Your task to perform on an android device: find which apps use the phone's location Image 0: 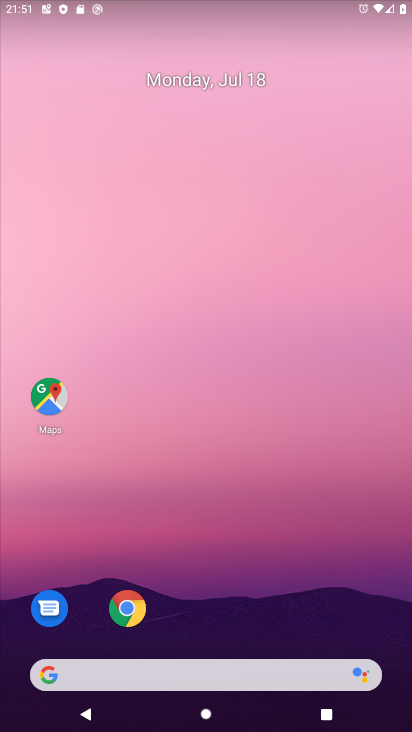
Step 0: drag from (39, 687) to (197, 285)
Your task to perform on an android device: find which apps use the phone's location Image 1: 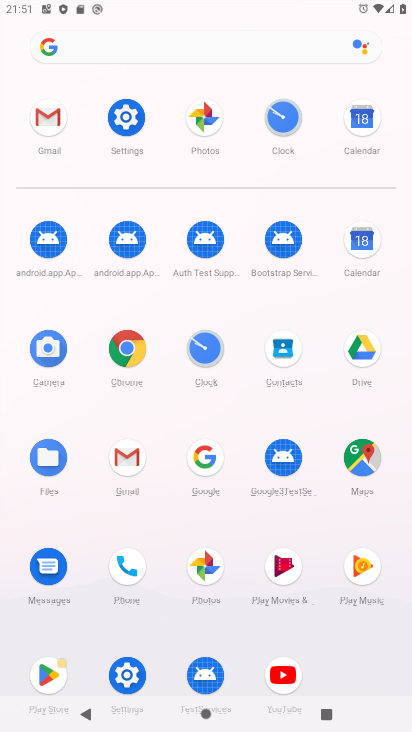
Step 1: click (131, 671)
Your task to perform on an android device: find which apps use the phone's location Image 2: 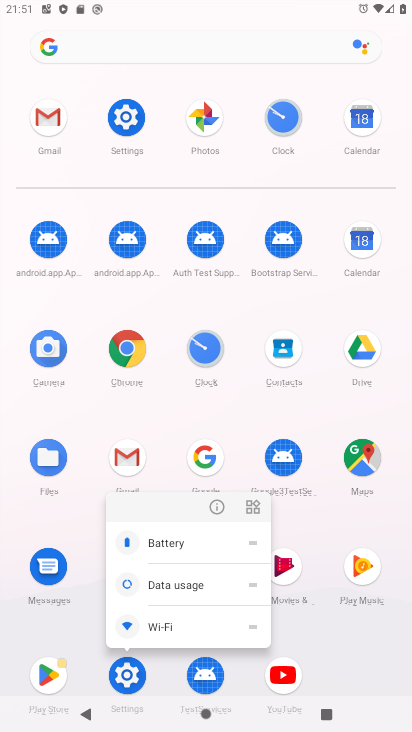
Step 2: click (123, 680)
Your task to perform on an android device: find which apps use the phone's location Image 3: 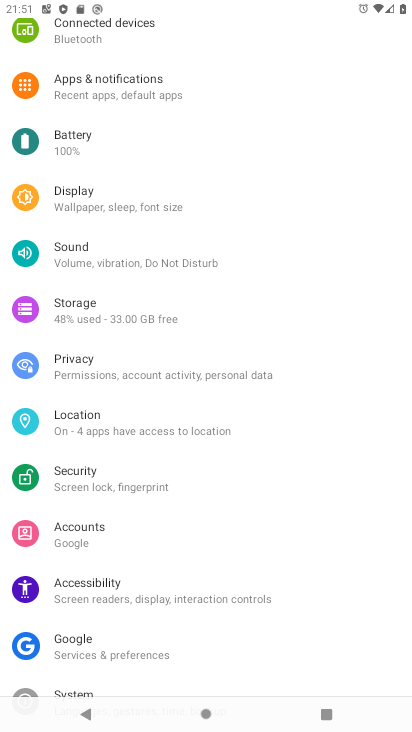
Step 3: click (108, 419)
Your task to perform on an android device: find which apps use the phone's location Image 4: 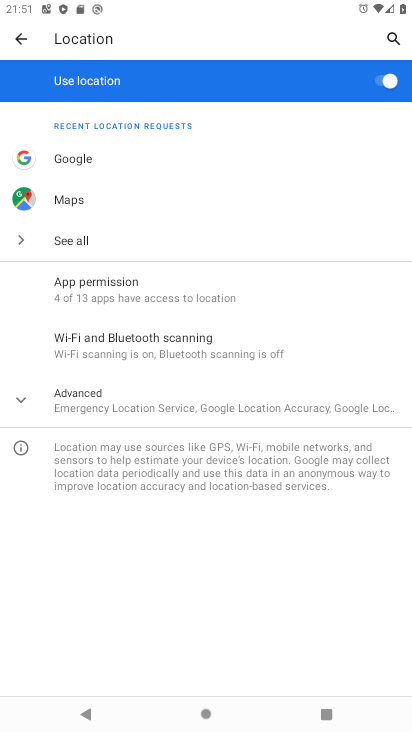
Step 4: click (112, 289)
Your task to perform on an android device: find which apps use the phone's location Image 5: 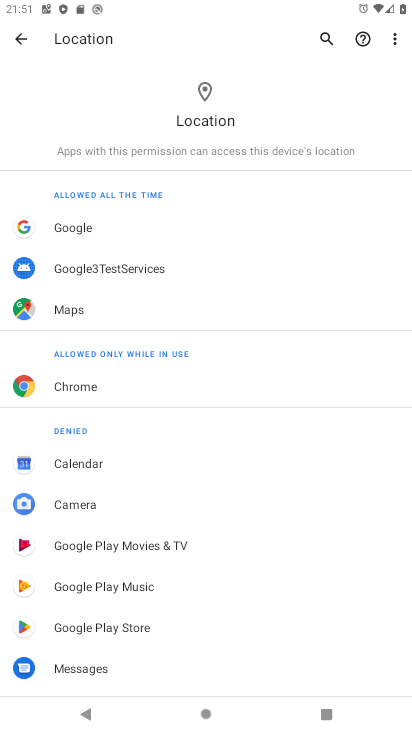
Step 5: task complete